Your task to perform on an android device: Clear the cart on bestbuy. Image 0: 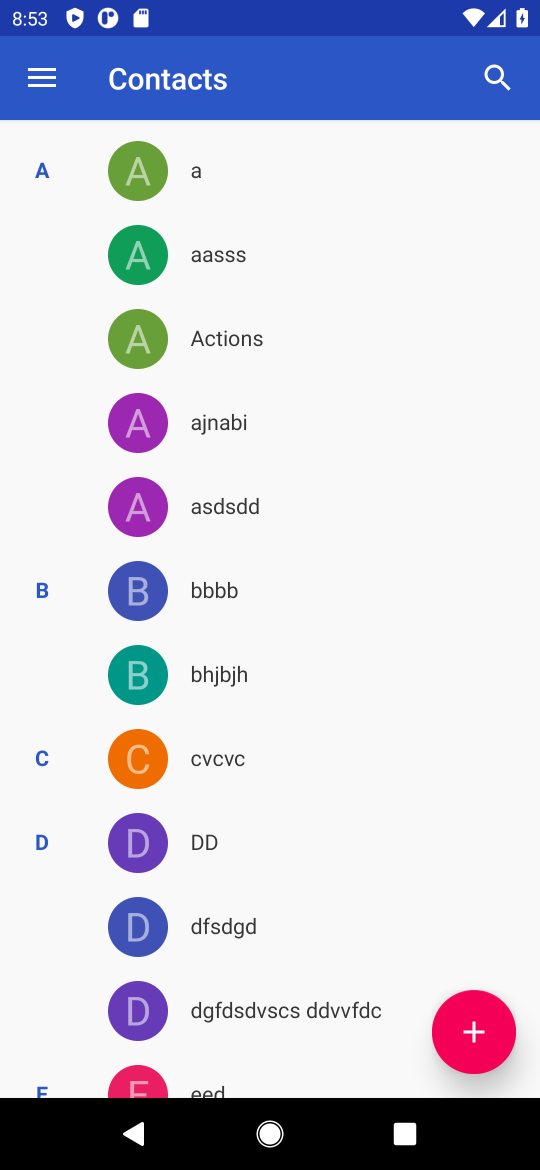
Step 0: press home button
Your task to perform on an android device: Clear the cart on bestbuy. Image 1: 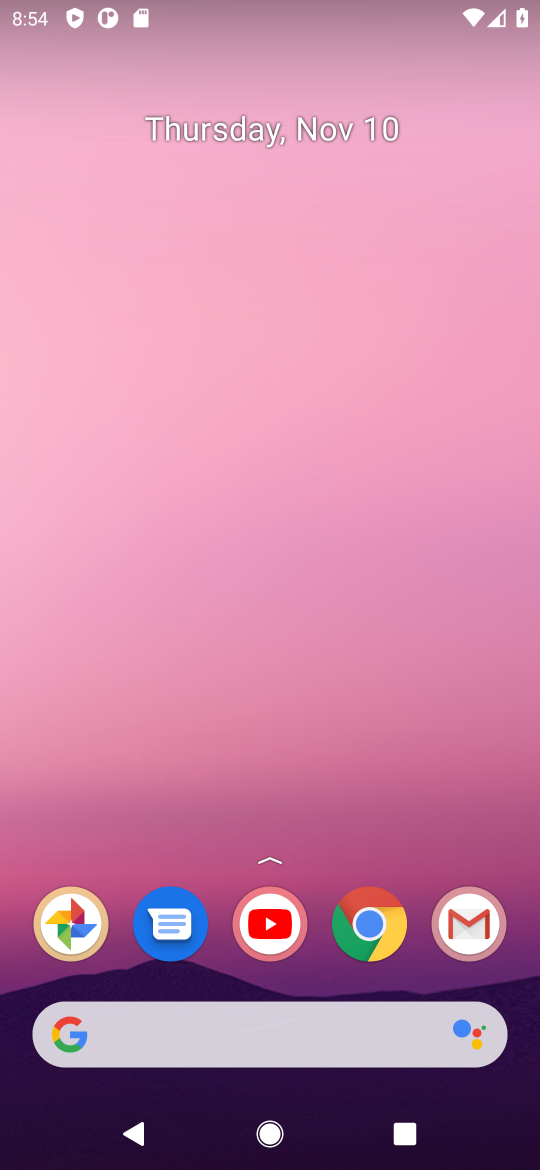
Step 1: click (366, 934)
Your task to perform on an android device: Clear the cart on bestbuy. Image 2: 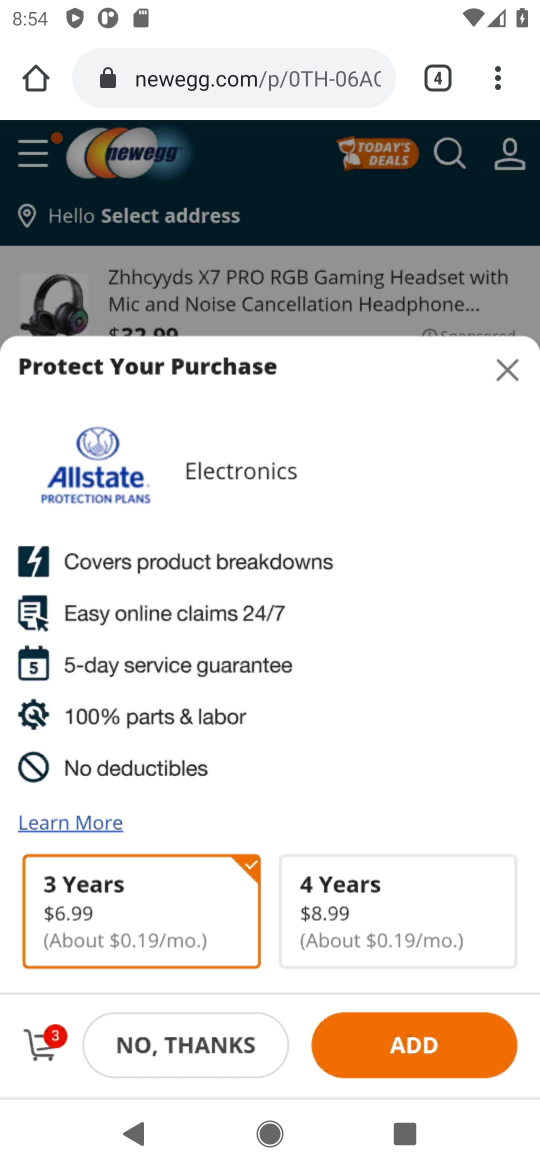
Step 2: click (275, 81)
Your task to perform on an android device: Clear the cart on bestbuy. Image 3: 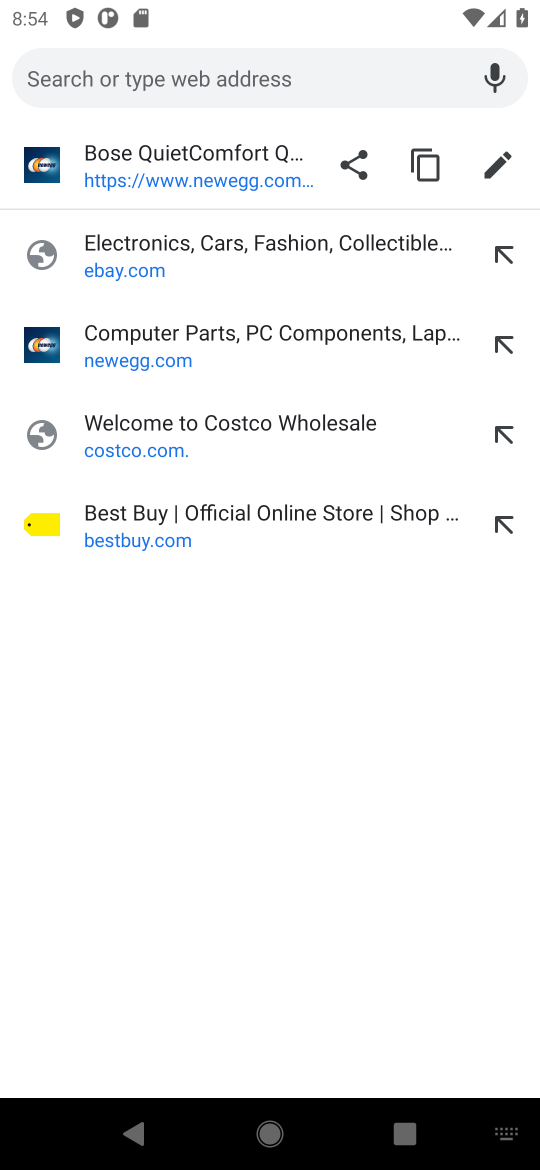
Step 3: click (113, 513)
Your task to perform on an android device: Clear the cart on bestbuy. Image 4: 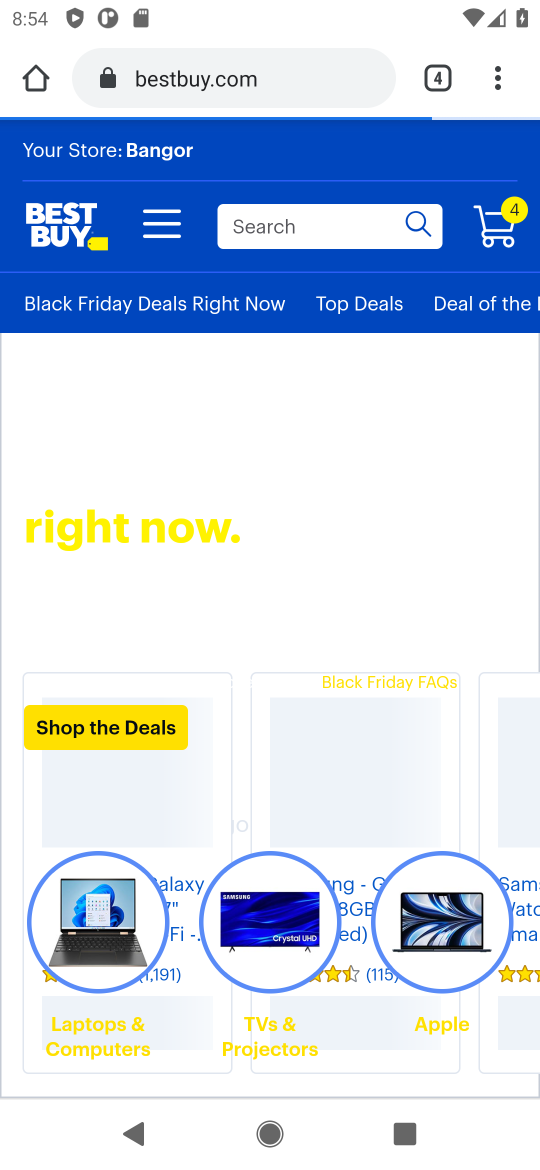
Step 4: click (494, 226)
Your task to perform on an android device: Clear the cart on bestbuy. Image 5: 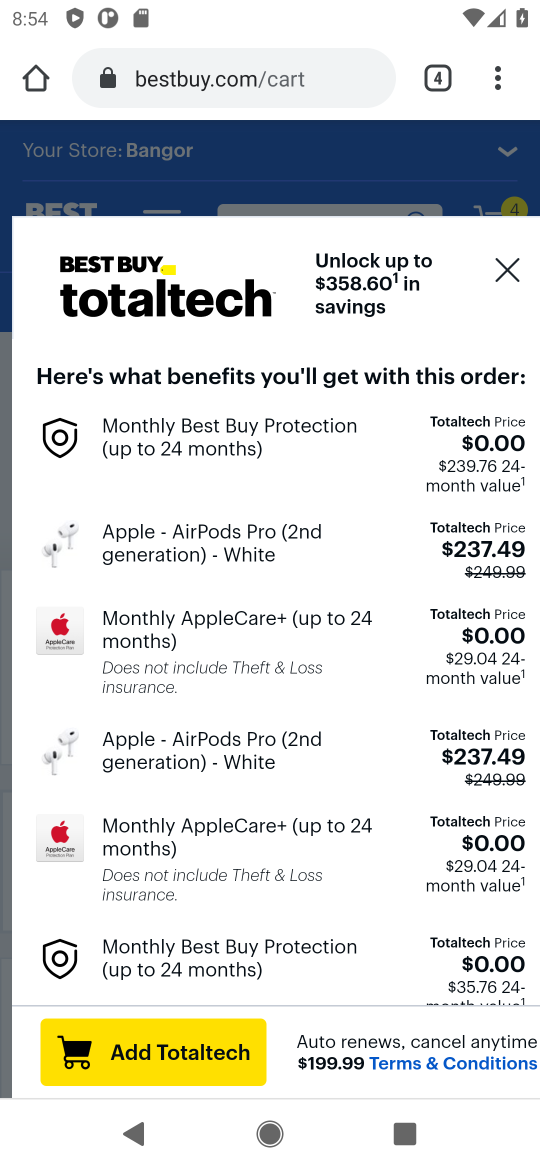
Step 5: drag from (211, 804) to (173, 401)
Your task to perform on an android device: Clear the cart on bestbuy. Image 6: 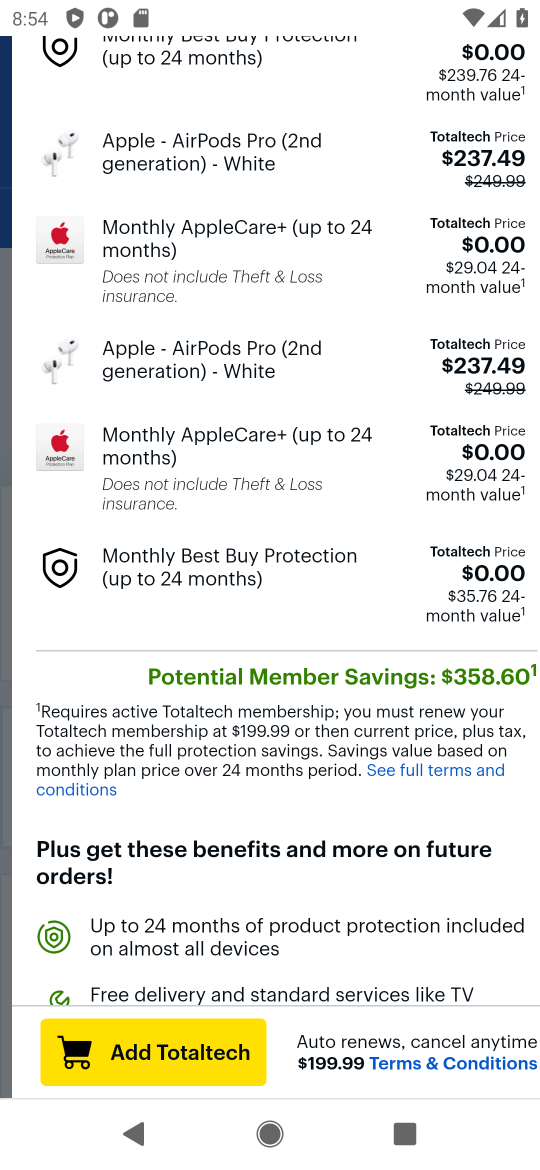
Step 6: drag from (408, 714) to (393, 1115)
Your task to perform on an android device: Clear the cart on bestbuy. Image 7: 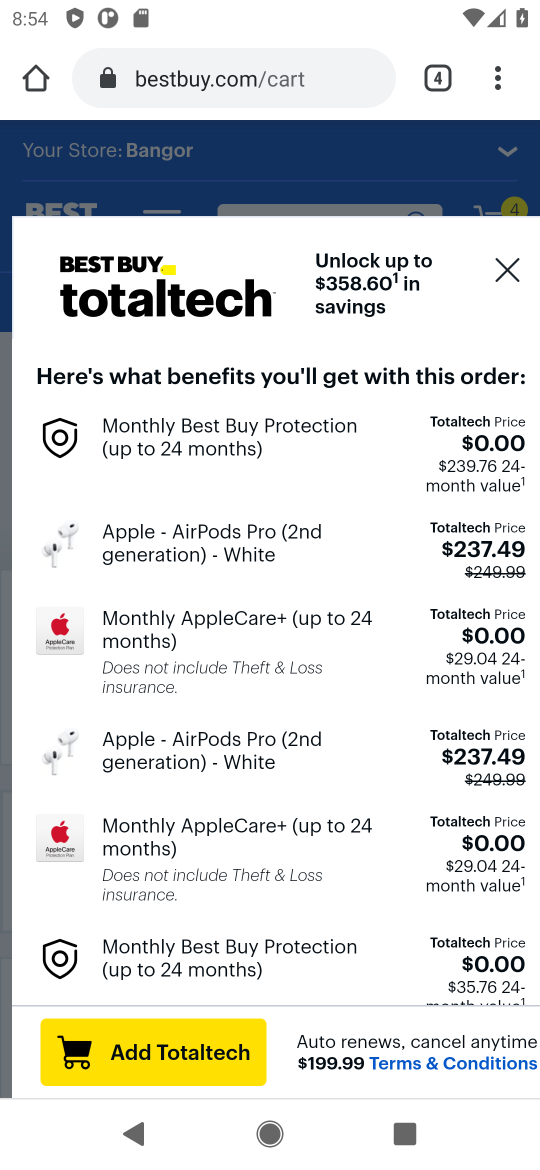
Step 7: click (499, 278)
Your task to perform on an android device: Clear the cart on bestbuy. Image 8: 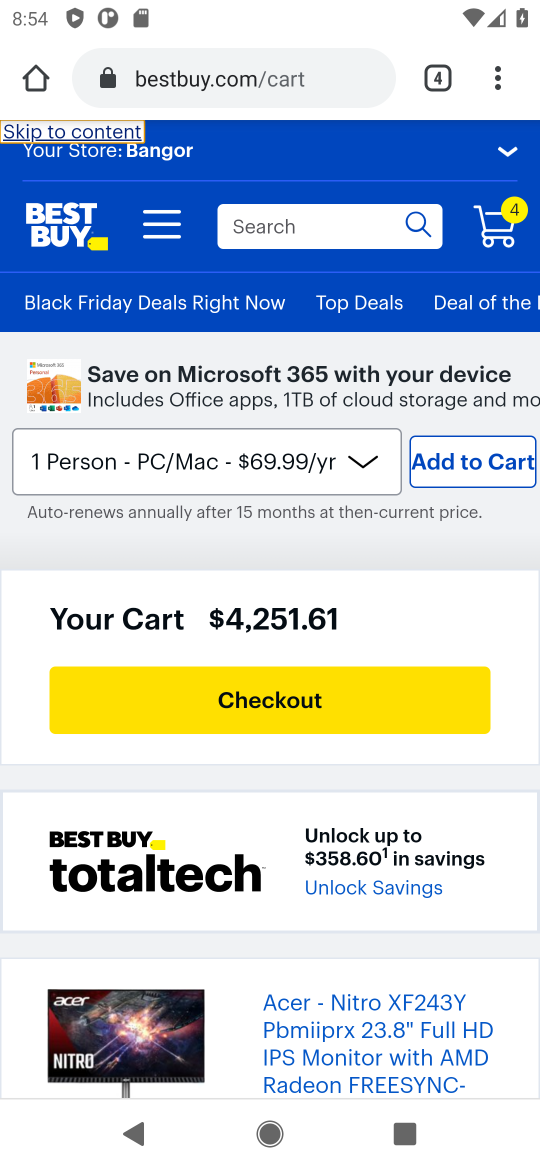
Step 8: drag from (273, 700) to (219, 198)
Your task to perform on an android device: Clear the cart on bestbuy. Image 9: 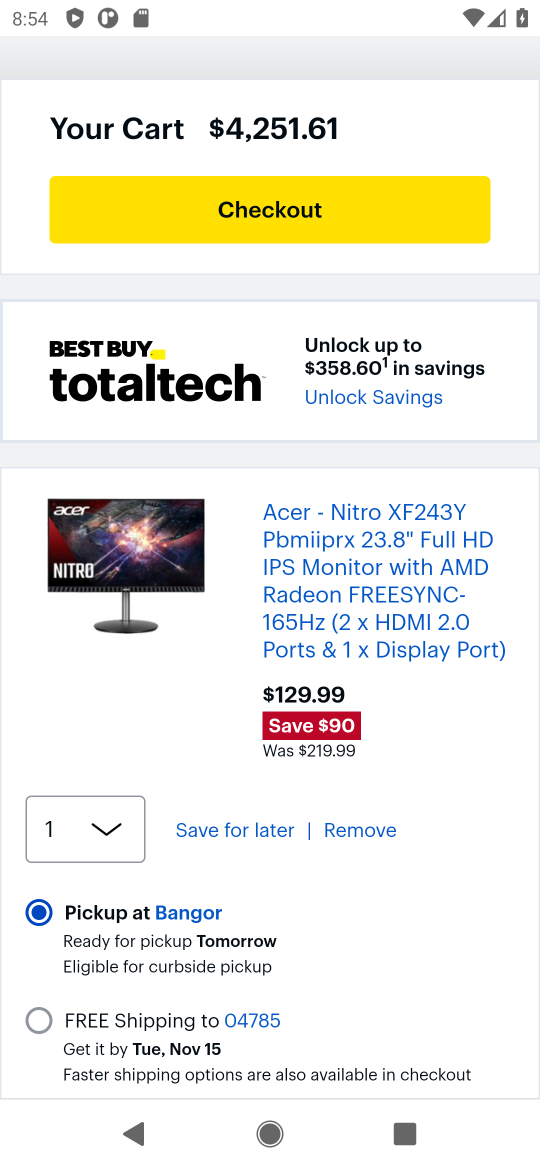
Step 9: click (335, 830)
Your task to perform on an android device: Clear the cart on bestbuy. Image 10: 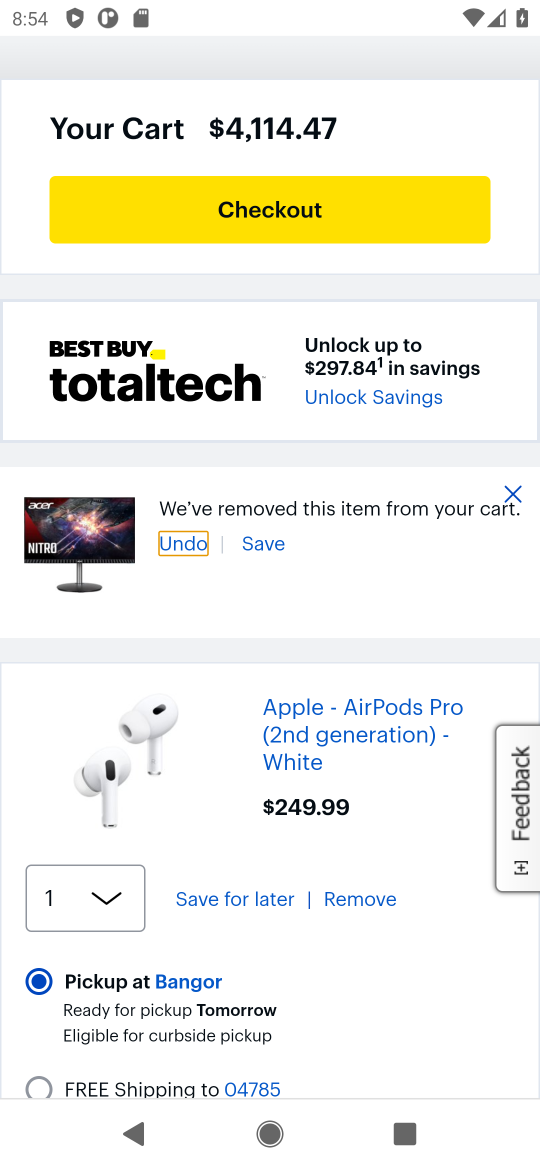
Step 10: click (343, 902)
Your task to perform on an android device: Clear the cart on bestbuy. Image 11: 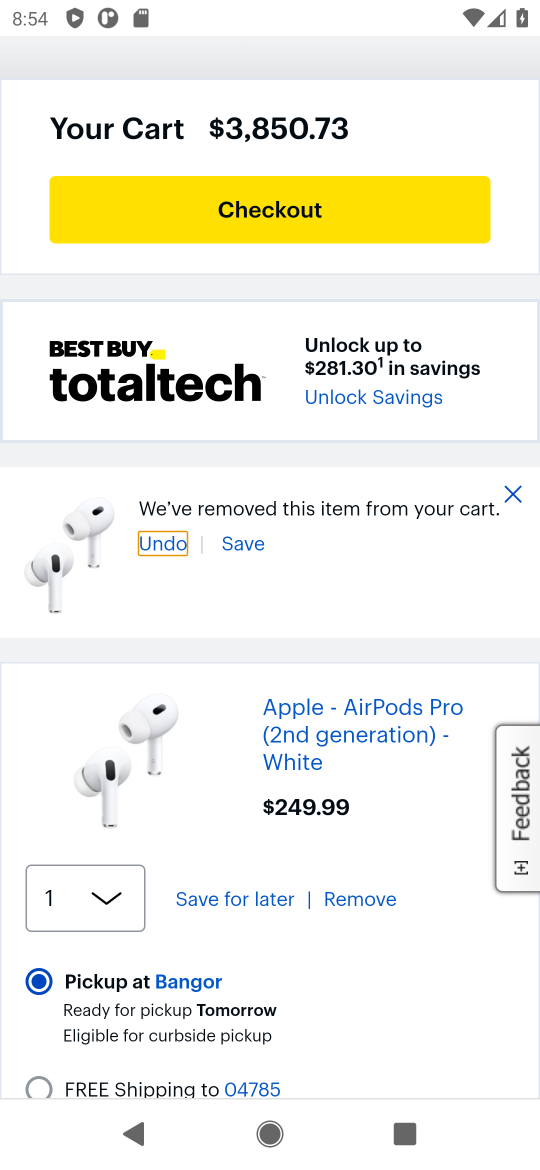
Step 11: click (343, 902)
Your task to perform on an android device: Clear the cart on bestbuy. Image 12: 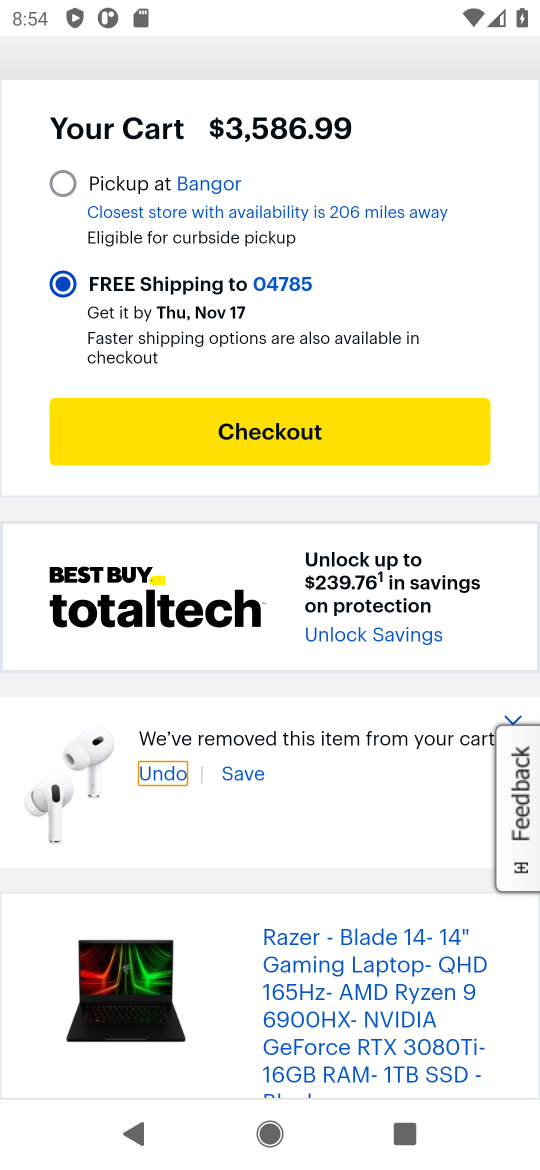
Step 12: drag from (207, 764) to (191, 959)
Your task to perform on an android device: Clear the cart on bestbuy. Image 13: 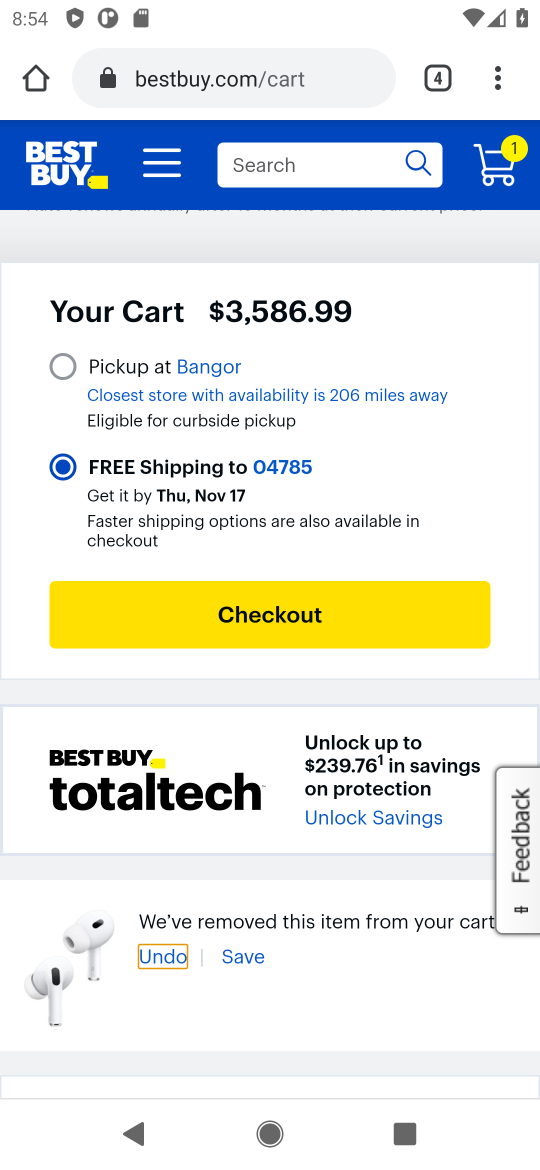
Step 13: drag from (213, 827) to (179, 368)
Your task to perform on an android device: Clear the cart on bestbuy. Image 14: 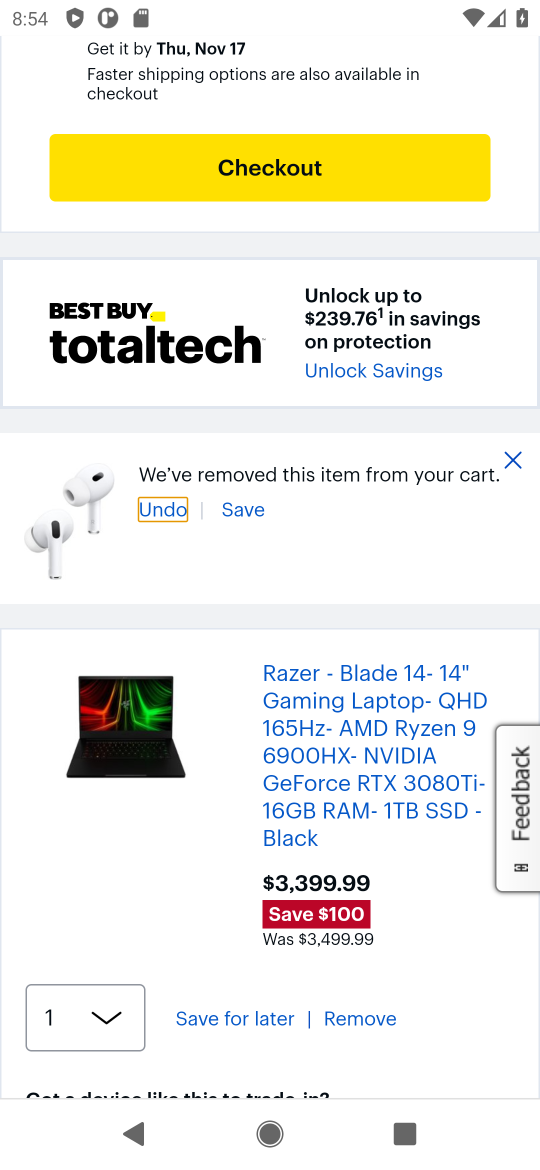
Step 14: click (360, 1017)
Your task to perform on an android device: Clear the cart on bestbuy. Image 15: 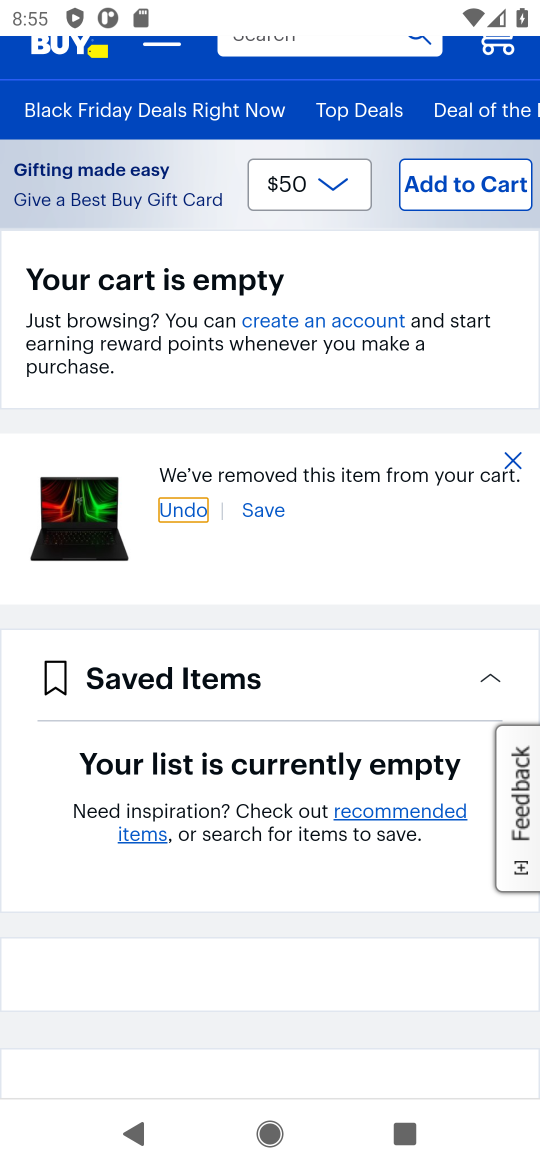
Step 15: task complete